Your task to perform on an android device: What's the weather going to be this weekend? Image 0: 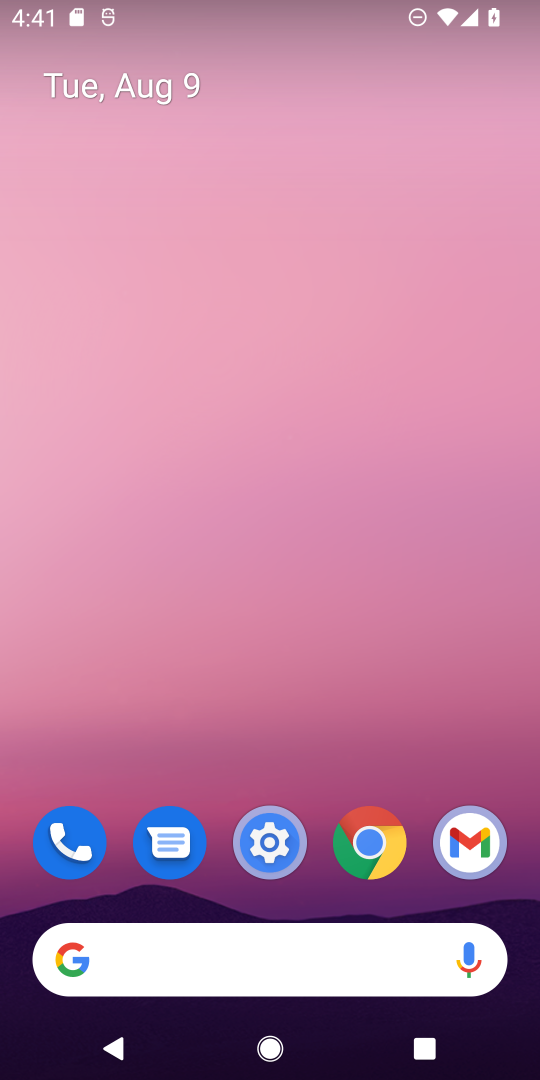
Step 0: drag from (275, 955) to (223, 10)
Your task to perform on an android device: What's the weather going to be this weekend? Image 1: 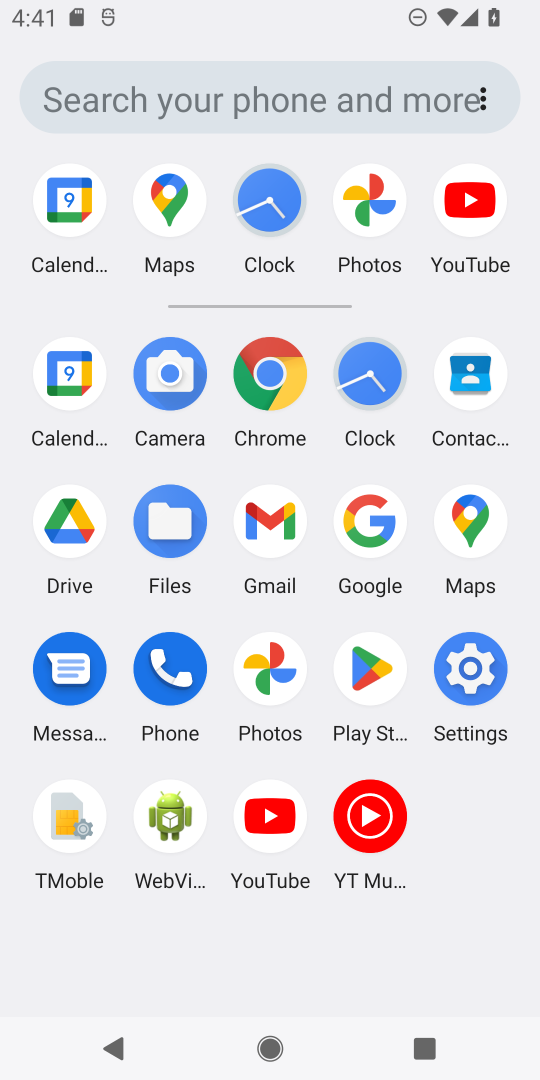
Step 1: click (277, 353)
Your task to perform on an android device: What's the weather going to be this weekend? Image 2: 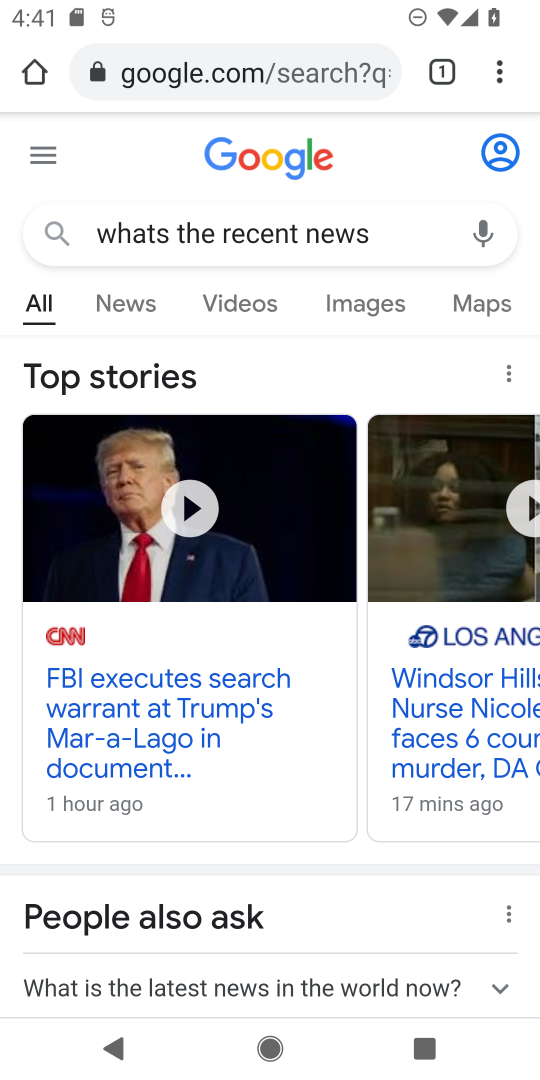
Step 2: click (336, 64)
Your task to perform on an android device: What's the weather going to be this weekend? Image 3: 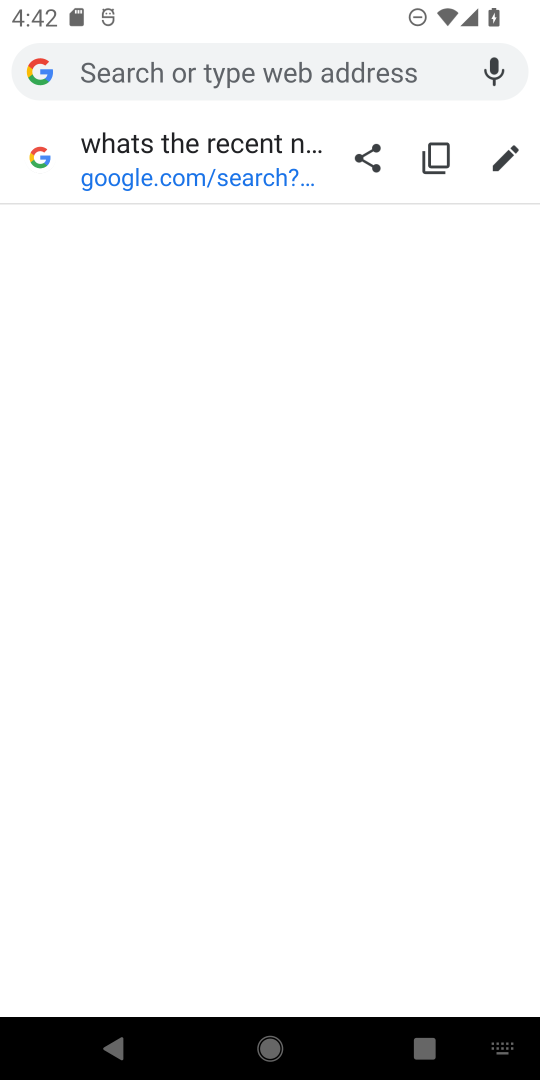
Step 3: type "whats the weather going to be this weekend"
Your task to perform on an android device: What's the weather going to be this weekend? Image 4: 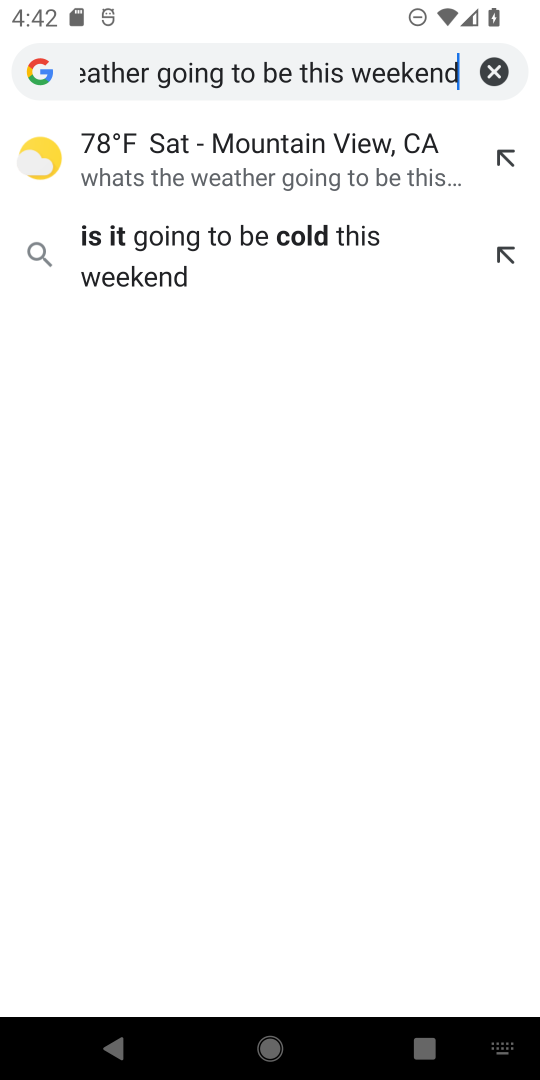
Step 4: click (320, 144)
Your task to perform on an android device: What's the weather going to be this weekend? Image 5: 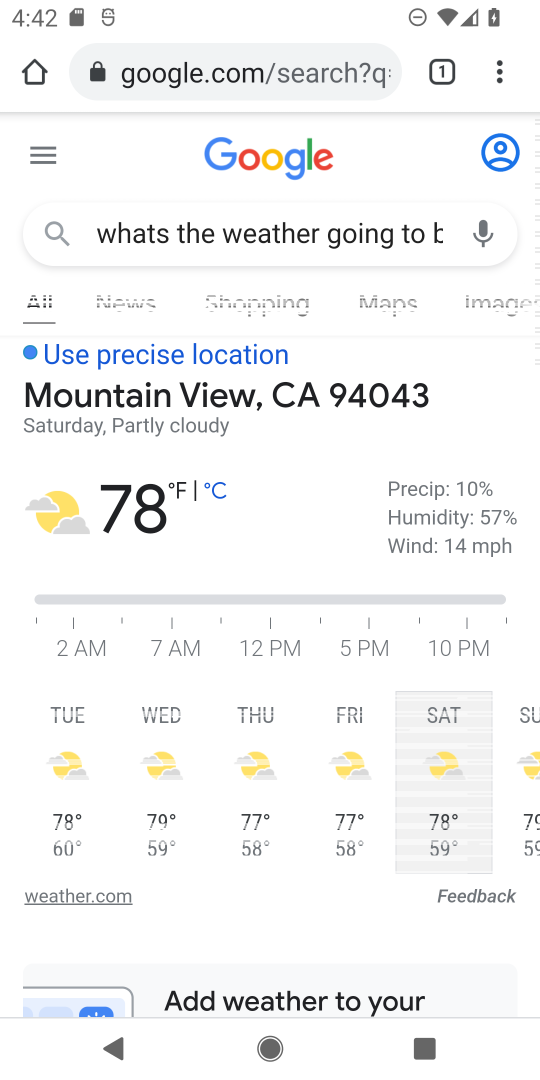
Step 5: task complete